Your task to perform on an android device: Open calendar and show me the fourth week of next month Image 0: 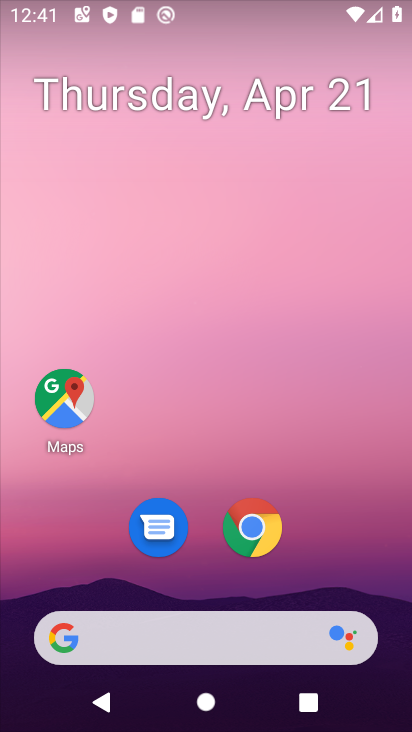
Step 0: drag from (367, 535) to (340, 120)
Your task to perform on an android device: Open calendar and show me the fourth week of next month Image 1: 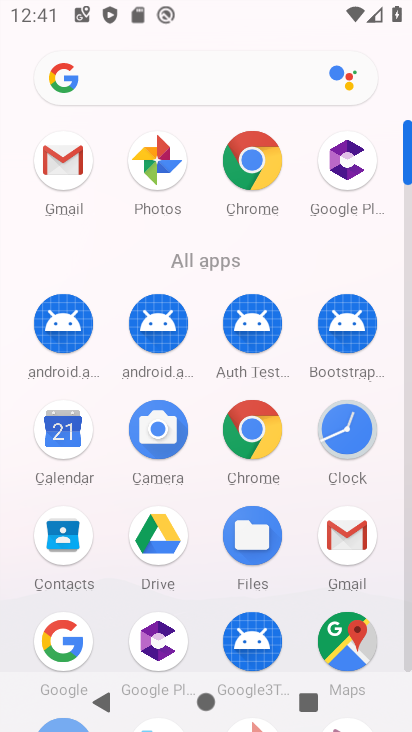
Step 1: click (62, 451)
Your task to perform on an android device: Open calendar and show me the fourth week of next month Image 2: 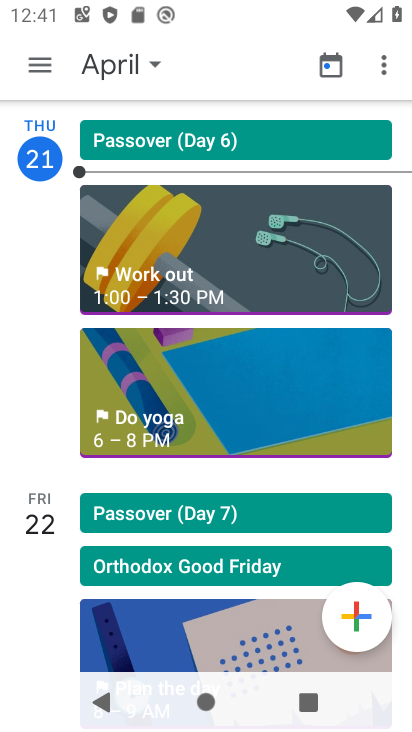
Step 2: click (160, 66)
Your task to perform on an android device: Open calendar and show me the fourth week of next month Image 3: 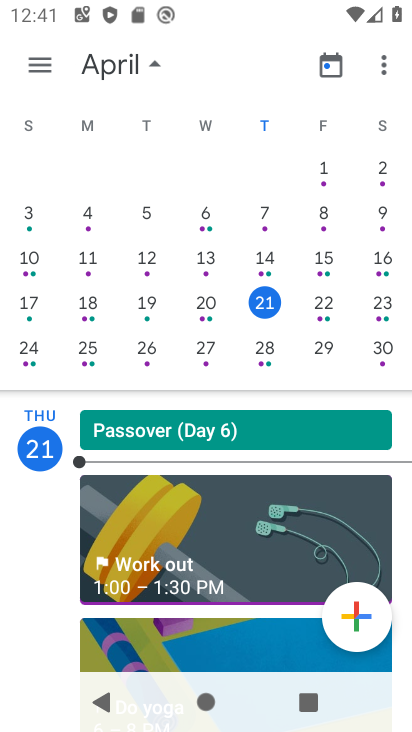
Step 3: drag from (325, 288) to (1, 282)
Your task to perform on an android device: Open calendar and show me the fourth week of next month Image 4: 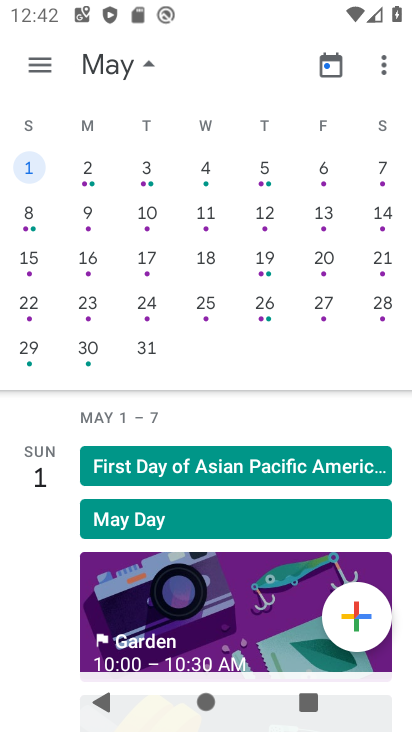
Step 4: click (147, 300)
Your task to perform on an android device: Open calendar and show me the fourth week of next month Image 5: 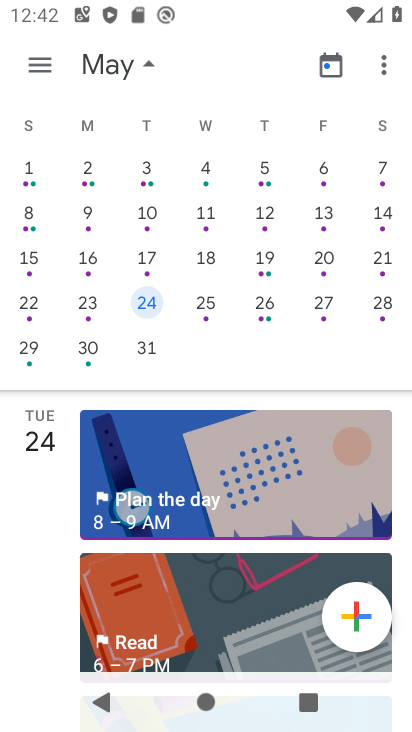
Step 5: task complete